Your task to perform on an android device: Add "bose soundlink mini" to the cart on costco, then select checkout. Image 0: 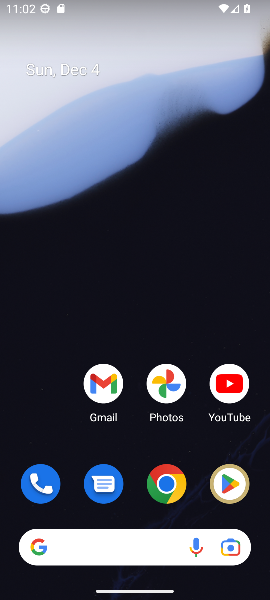
Step 0: click (169, 486)
Your task to perform on an android device: Add "bose soundlink mini" to the cart on costco, then select checkout. Image 1: 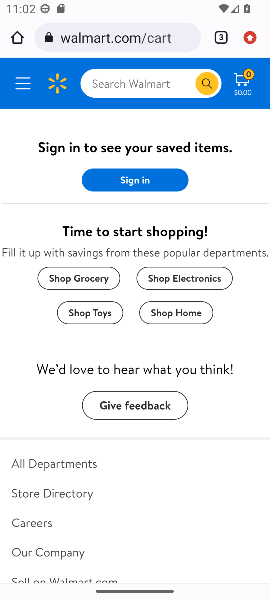
Step 1: click (115, 39)
Your task to perform on an android device: Add "bose soundlink mini" to the cart on costco, then select checkout. Image 2: 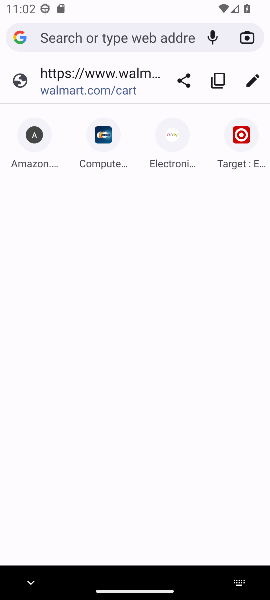
Step 2: type "costco.com"
Your task to perform on an android device: Add "bose soundlink mini" to the cart on costco, then select checkout. Image 3: 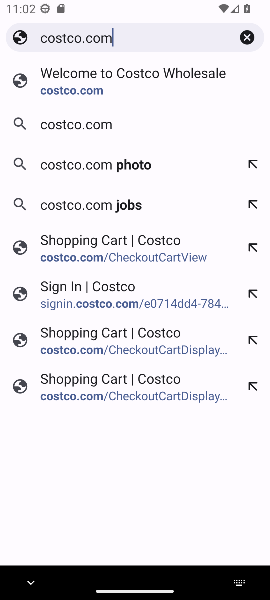
Step 3: click (67, 93)
Your task to perform on an android device: Add "bose soundlink mini" to the cart on costco, then select checkout. Image 4: 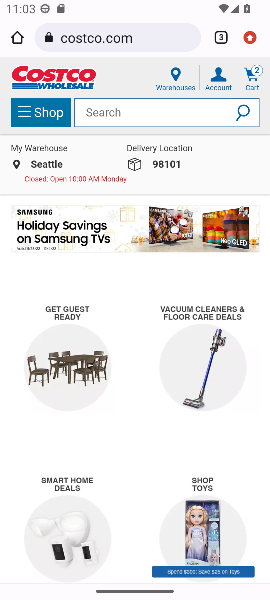
Step 4: click (100, 114)
Your task to perform on an android device: Add "bose soundlink mini" to the cart on costco, then select checkout. Image 5: 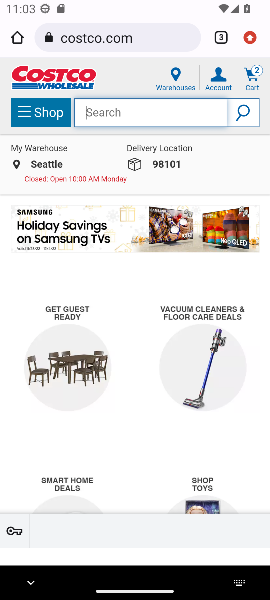
Step 5: type "bose soundlink mini"
Your task to perform on an android device: Add "bose soundlink mini" to the cart on costco, then select checkout. Image 6: 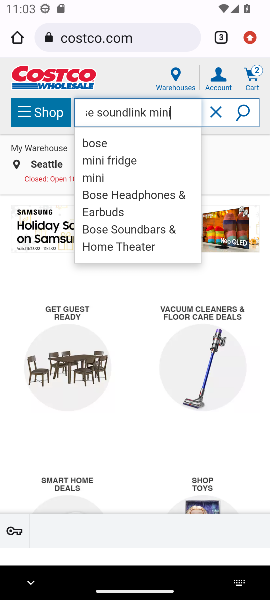
Step 6: click (243, 116)
Your task to perform on an android device: Add "bose soundlink mini" to the cart on costco, then select checkout. Image 7: 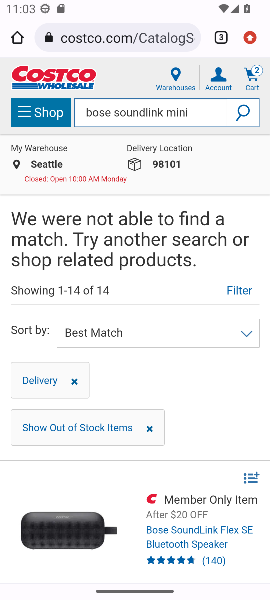
Step 7: task complete